Your task to perform on an android device: Go to sound settings Image 0: 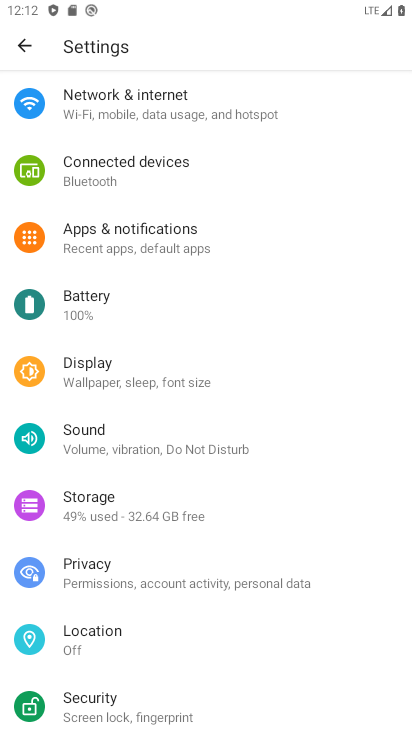
Step 0: drag from (229, 587) to (227, 365)
Your task to perform on an android device: Go to sound settings Image 1: 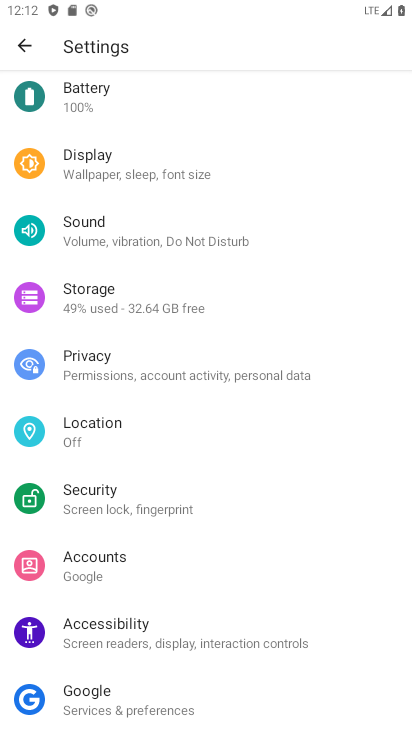
Step 1: click (132, 212)
Your task to perform on an android device: Go to sound settings Image 2: 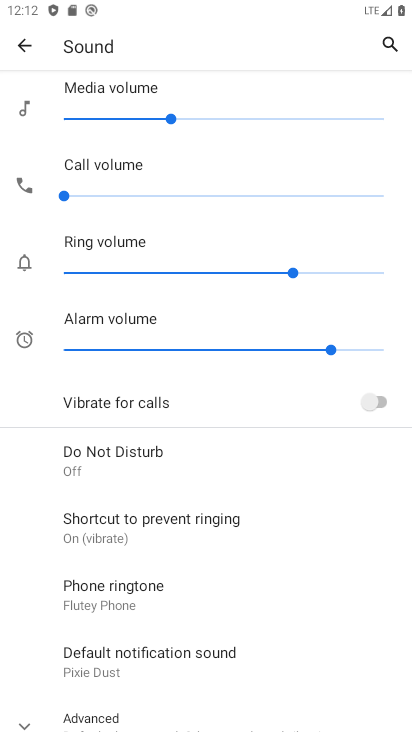
Step 2: click (132, 212)
Your task to perform on an android device: Go to sound settings Image 3: 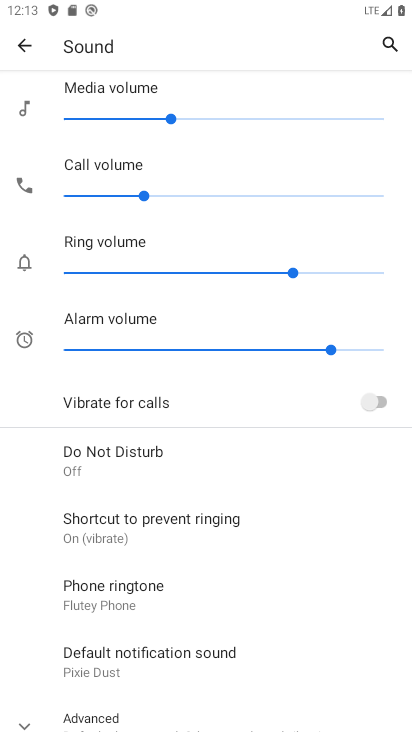
Step 3: task complete